Your task to perform on an android device: Add "macbook pro" to the cart on costco.com, then select checkout. Image 0: 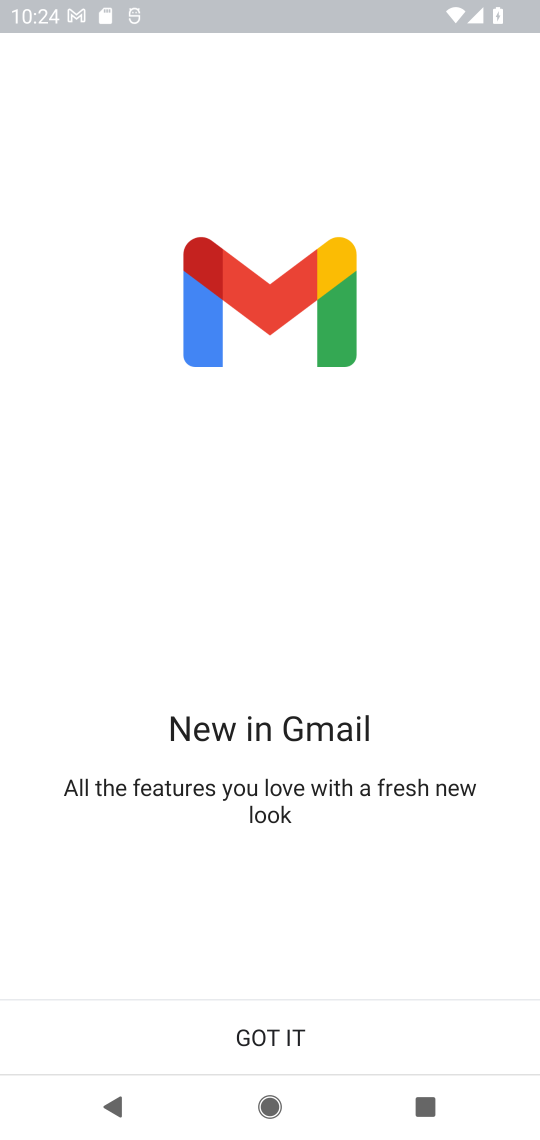
Step 0: press home button
Your task to perform on an android device: Add "macbook pro" to the cart on costco.com, then select checkout. Image 1: 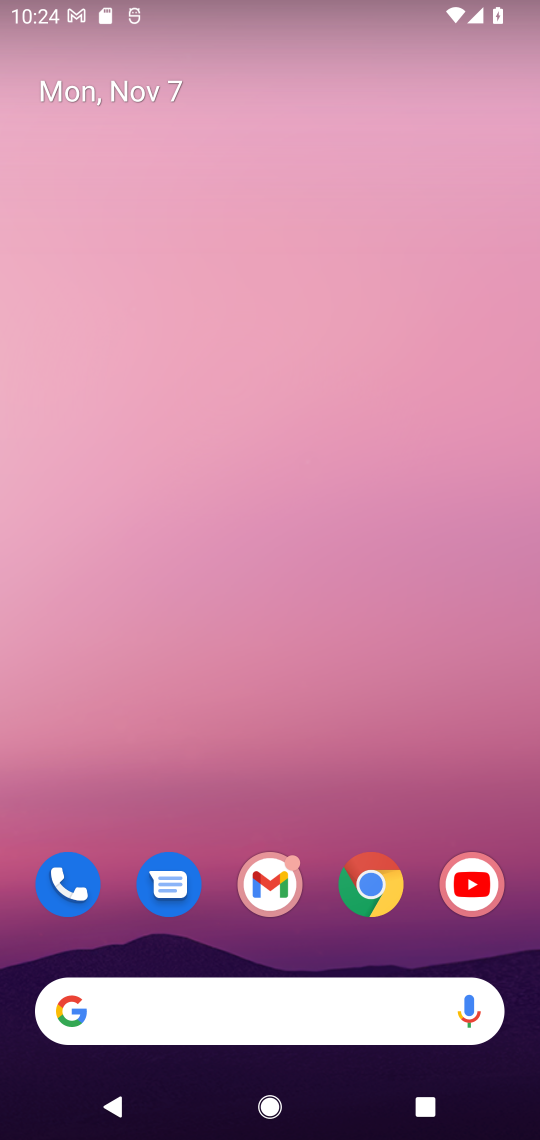
Step 1: click (356, 893)
Your task to perform on an android device: Add "macbook pro" to the cart on costco.com, then select checkout. Image 2: 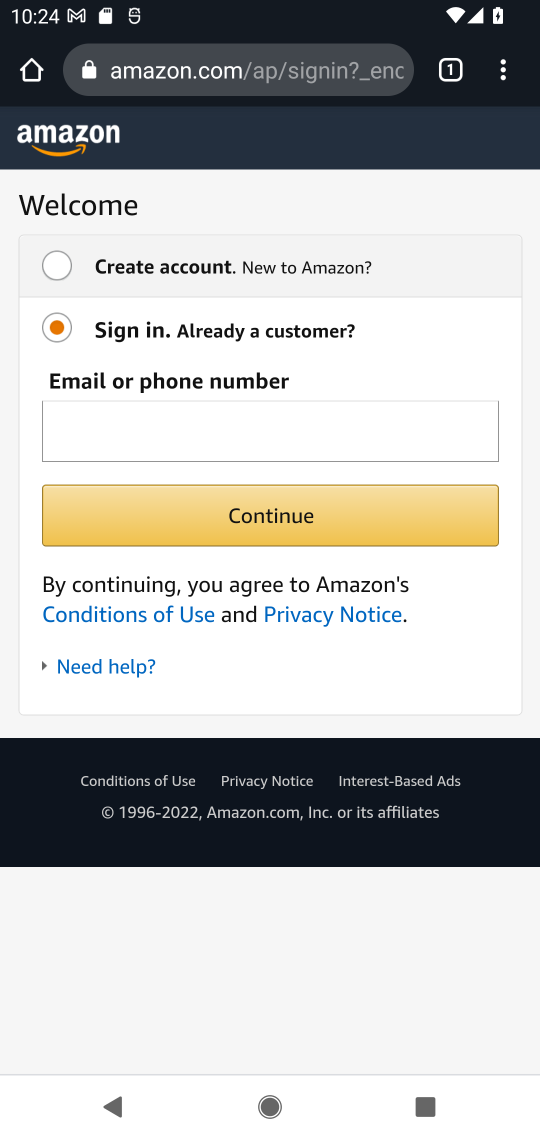
Step 2: click (316, 74)
Your task to perform on an android device: Add "macbook pro" to the cart on costco.com, then select checkout. Image 3: 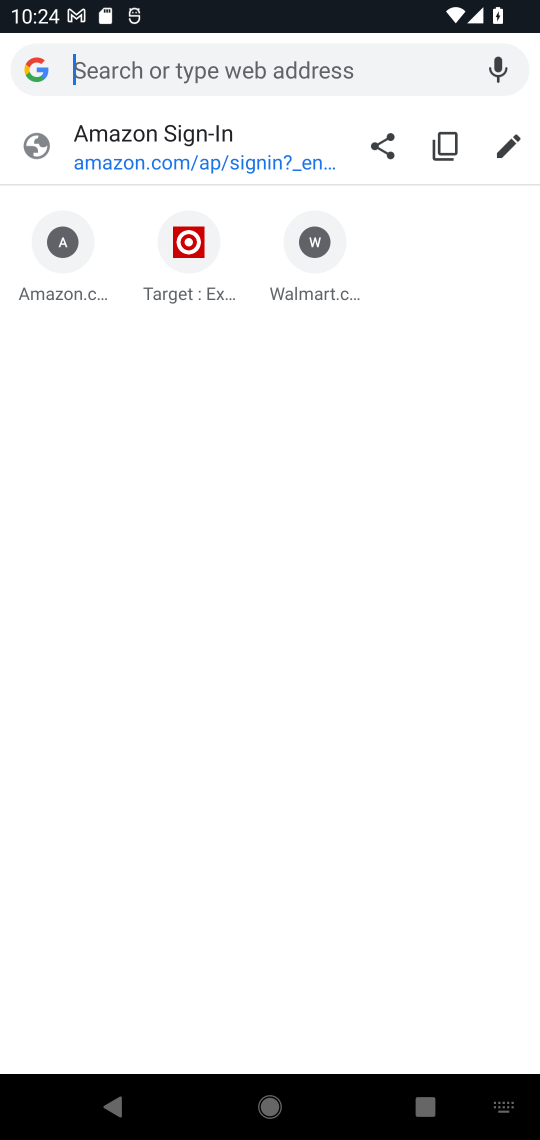
Step 3: type "costco.com"
Your task to perform on an android device: Add "macbook pro" to the cart on costco.com, then select checkout. Image 4: 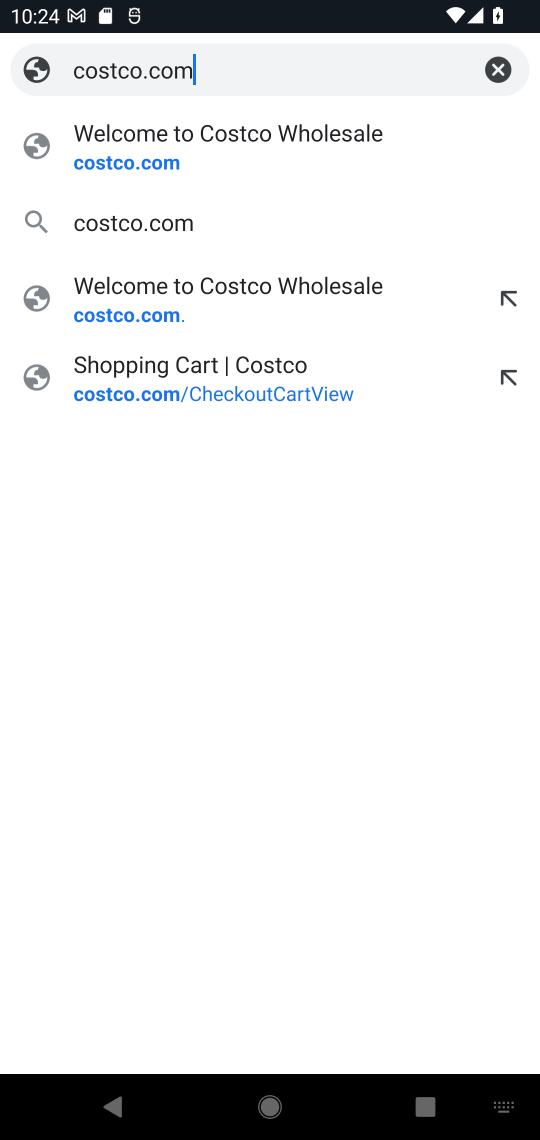
Step 4: click (140, 226)
Your task to perform on an android device: Add "macbook pro" to the cart on costco.com, then select checkout. Image 5: 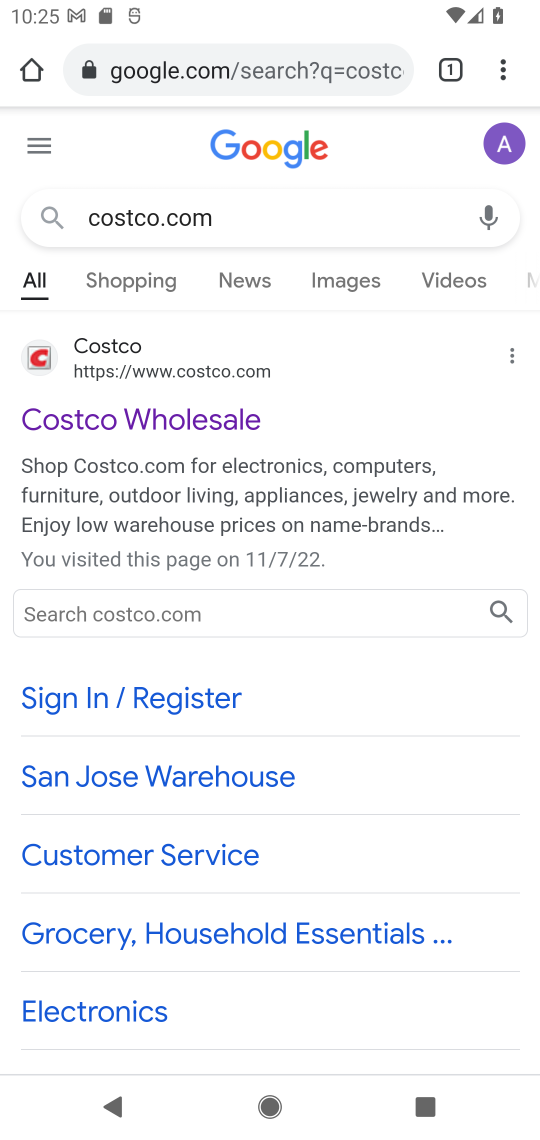
Step 5: click (180, 371)
Your task to perform on an android device: Add "macbook pro" to the cart on costco.com, then select checkout. Image 6: 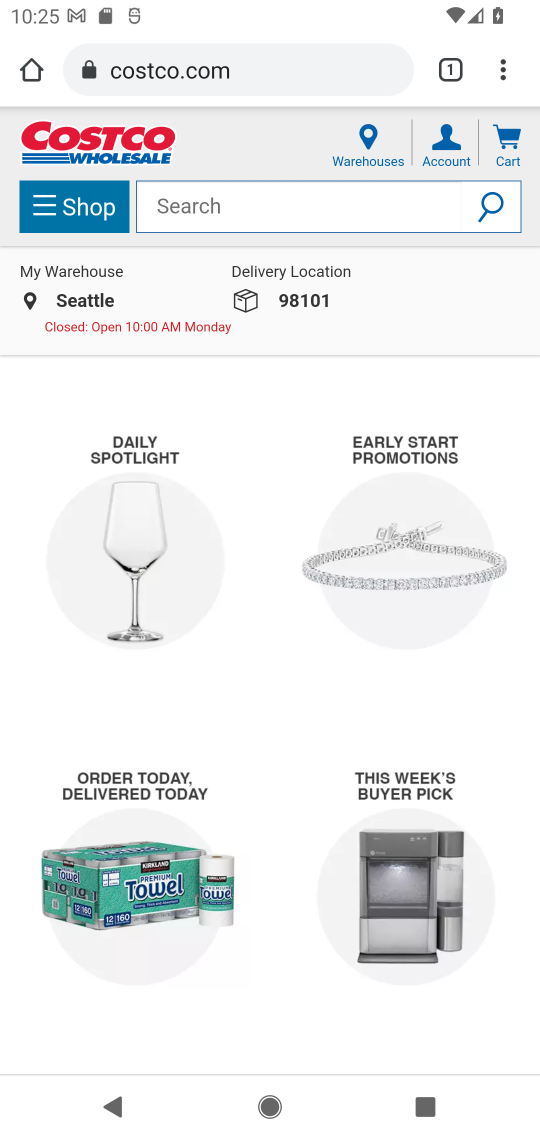
Step 6: click (393, 201)
Your task to perform on an android device: Add "macbook pro" to the cart on costco.com, then select checkout. Image 7: 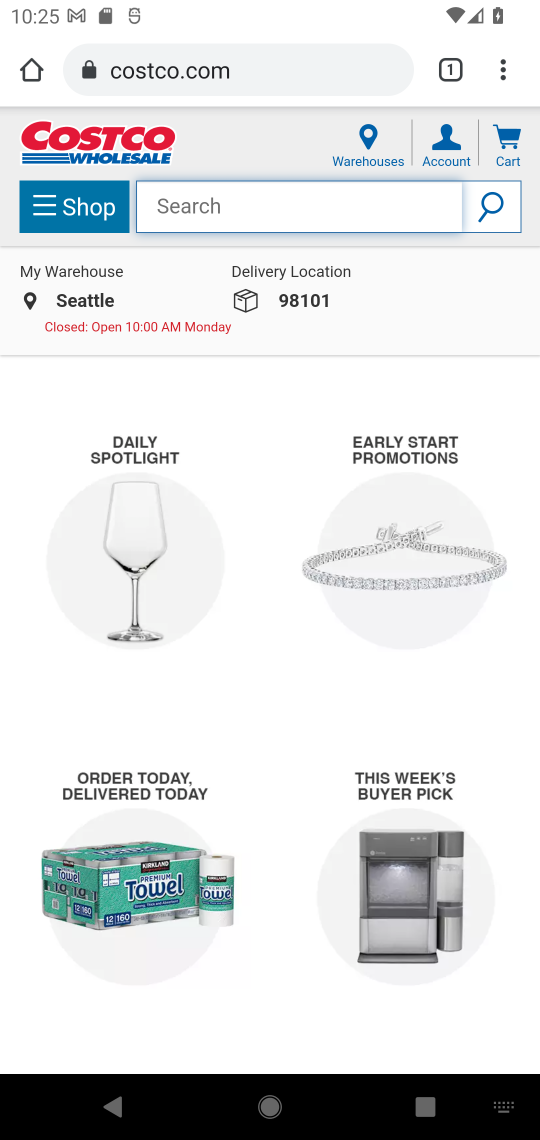
Step 7: type "macbook pro"
Your task to perform on an android device: Add "macbook pro" to the cart on costco.com, then select checkout. Image 8: 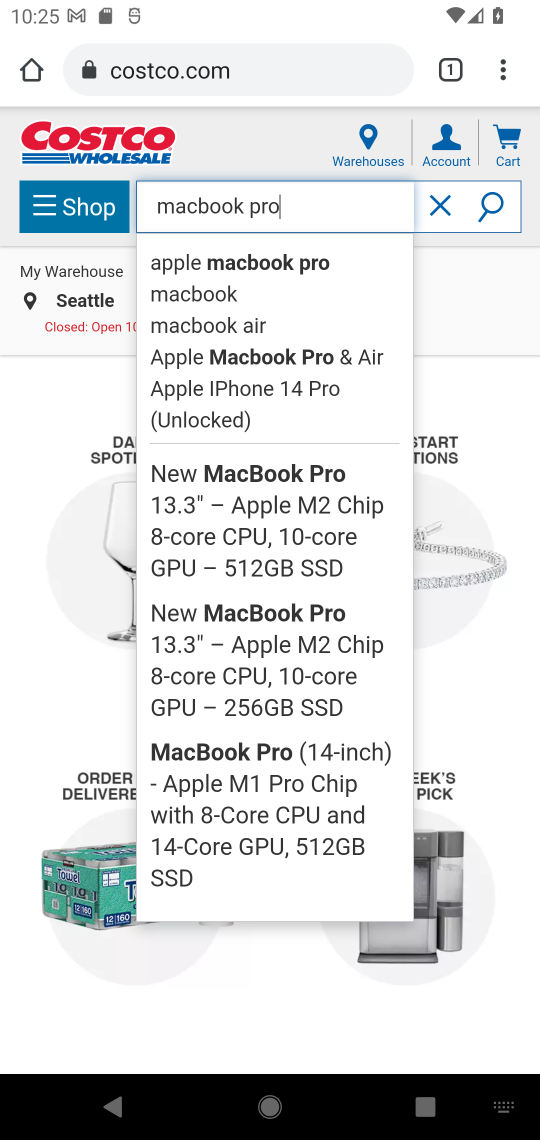
Step 8: click (464, 310)
Your task to perform on an android device: Add "macbook pro" to the cart on costco.com, then select checkout. Image 9: 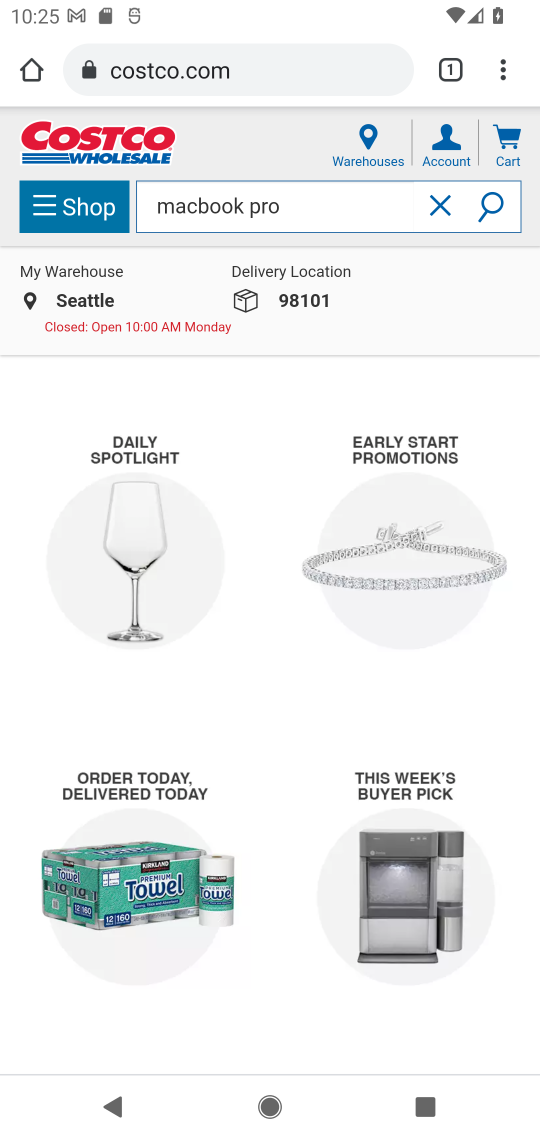
Step 9: click (355, 214)
Your task to perform on an android device: Add "macbook pro" to the cart on costco.com, then select checkout. Image 10: 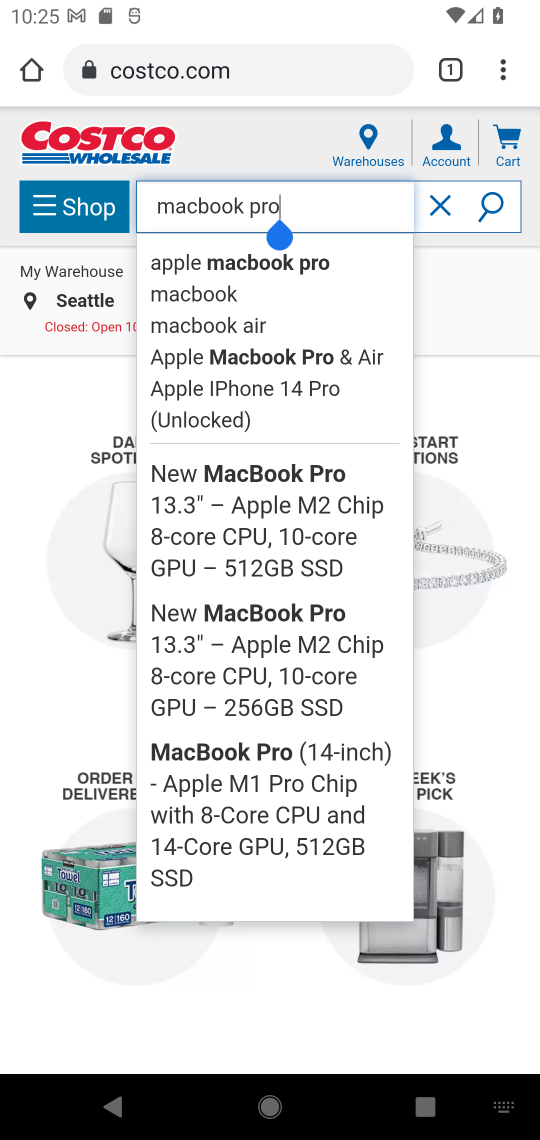
Step 10: click (312, 473)
Your task to perform on an android device: Add "macbook pro" to the cart on costco.com, then select checkout. Image 11: 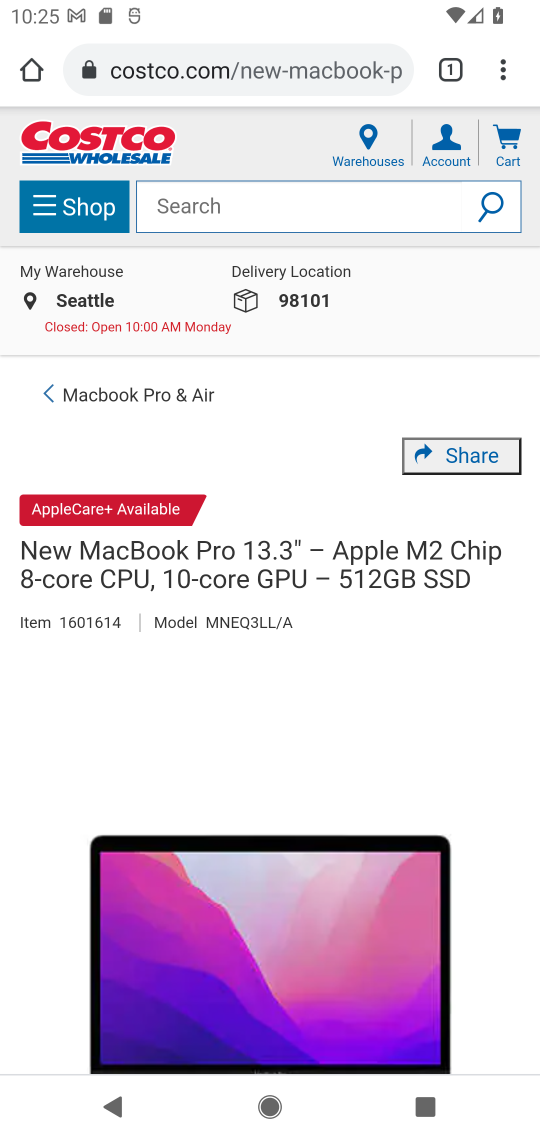
Step 11: task complete